Your task to perform on an android device: open chrome privacy settings Image 0: 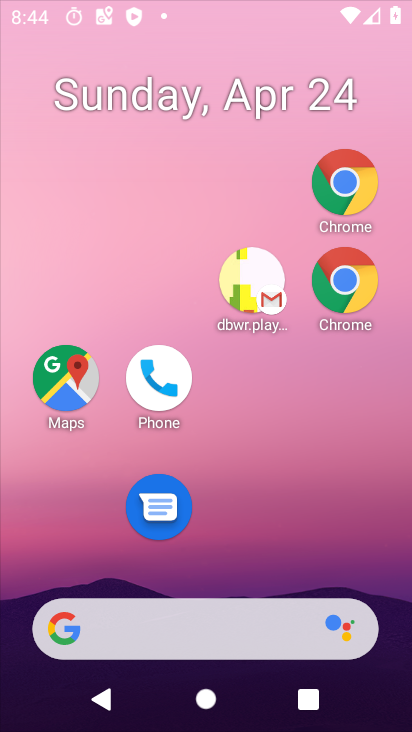
Step 0: click (159, 71)
Your task to perform on an android device: open chrome privacy settings Image 1: 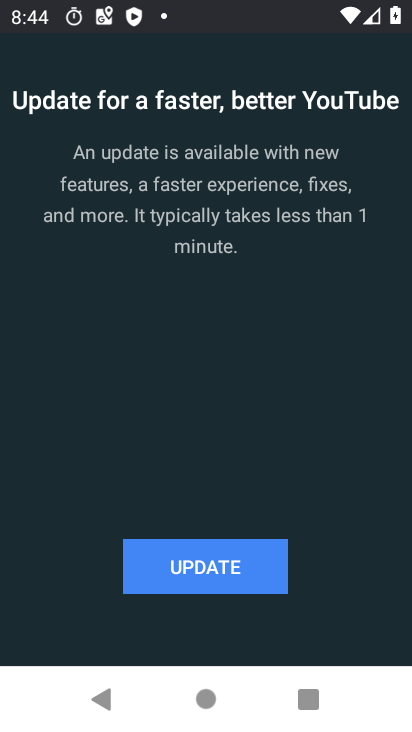
Step 1: press home button
Your task to perform on an android device: open chrome privacy settings Image 2: 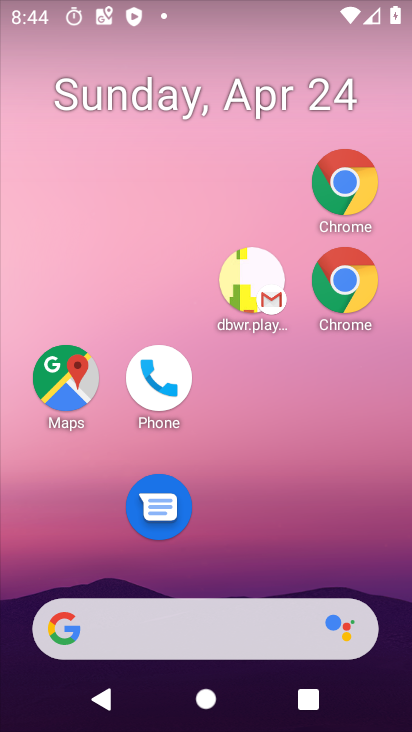
Step 2: drag from (274, 698) to (145, 18)
Your task to perform on an android device: open chrome privacy settings Image 3: 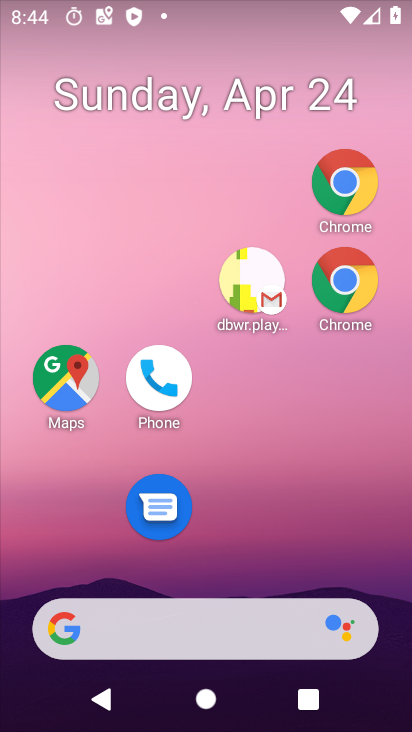
Step 3: drag from (255, 367) to (216, 34)
Your task to perform on an android device: open chrome privacy settings Image 4: 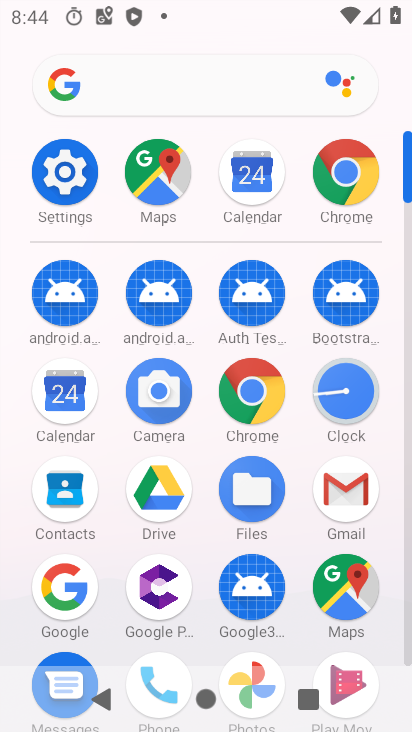
Step 4: click (341, 173)
Your task to perform on an android device: open chrome privacy settings Image 5: 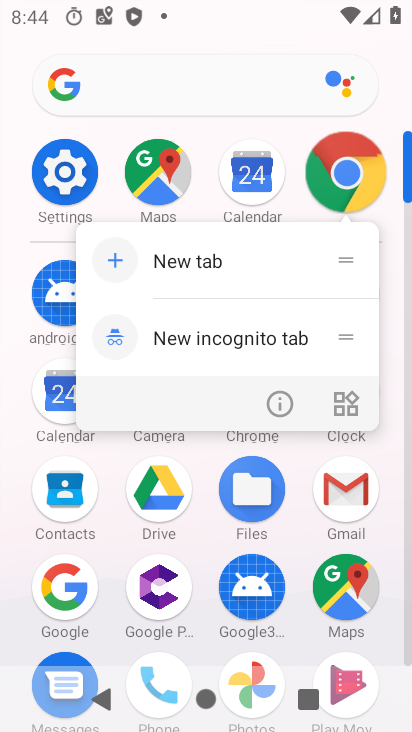
Step 5: click (342, 172)
Your task to perform on an android device: open chrome privacy settings Image 6: 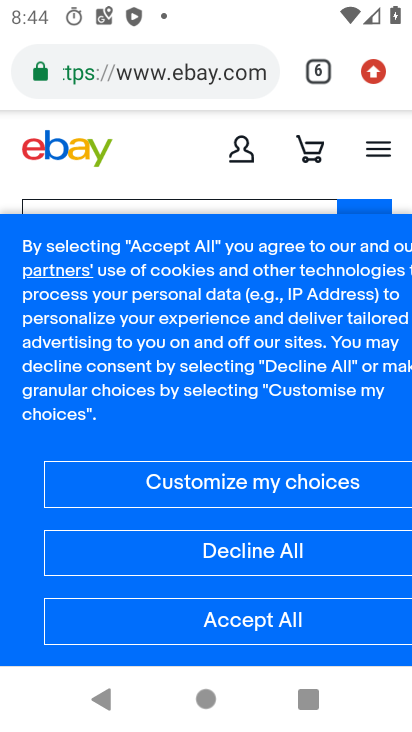
Step 6: drag from (368, 74) to (155, 342)
Your task to perform on an android device: open chrome privacy settings Image 7: 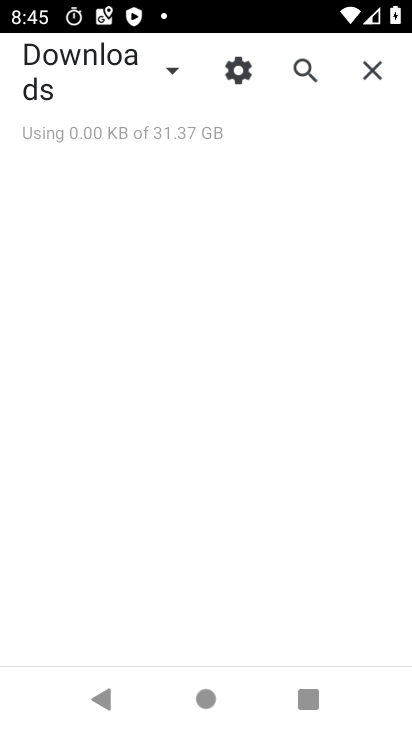
Step 7: click (368, 61)
Your task to perform on an android device: open chrome privacy settings Image 8: 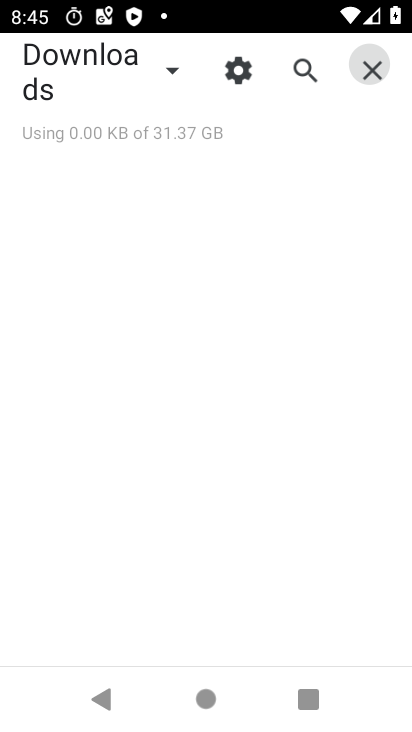
Step 8: click (368, 61)
Your task to perform on an android device: open chrome privacy settings Image 9: 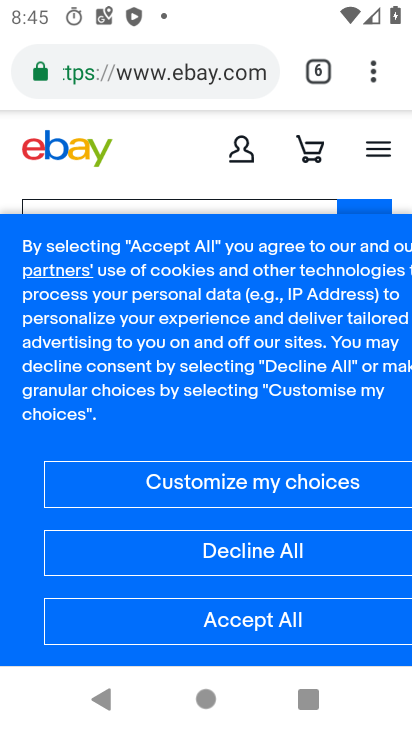
Step 9: drag from (371, 77) to (141, 504)
Your task to perform on an android device: open chrome privacy settings Image 10: 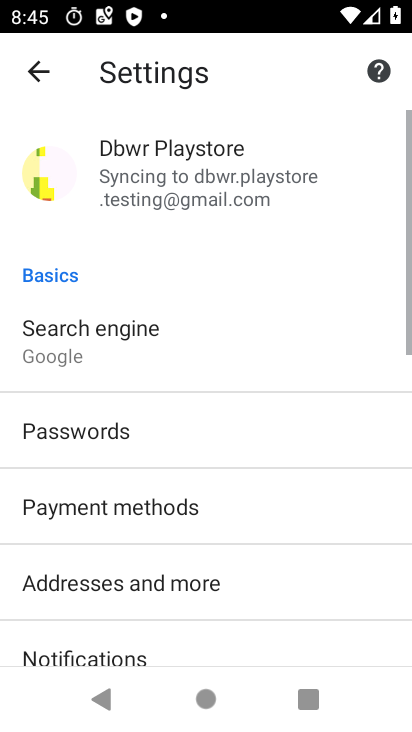
Step 10: click (155, 503)
Your task to perform on an android device: open chrome privacy settings Image 11: 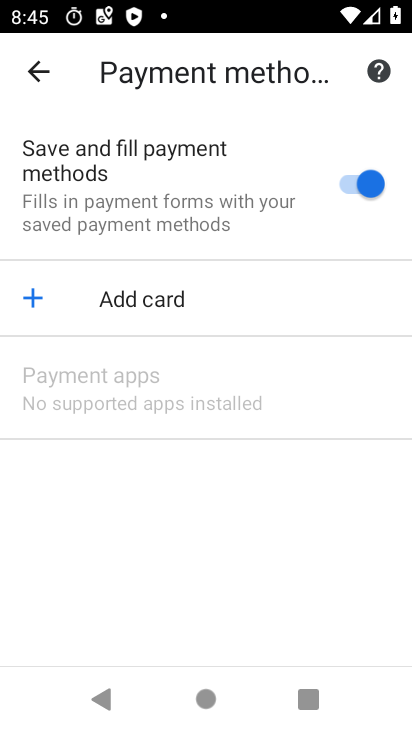
Step 11: click (34, 67)
Your task to perform on an android device: open chrome privacy settings Image 12: 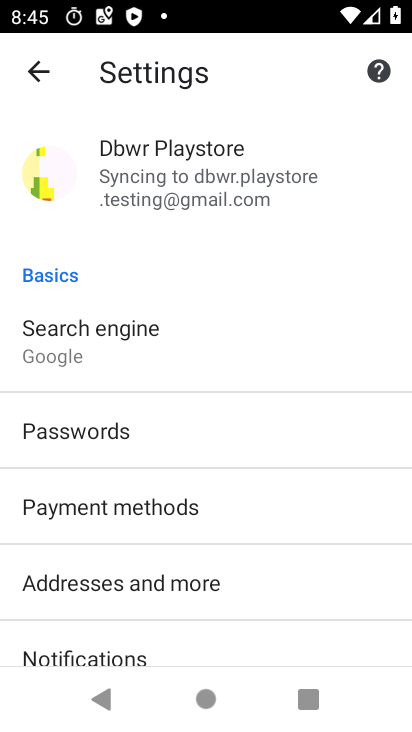
Step 12: task complete